Your task to perform on an android device: Search for the best rated 3d printer on Amazon. Image 0: 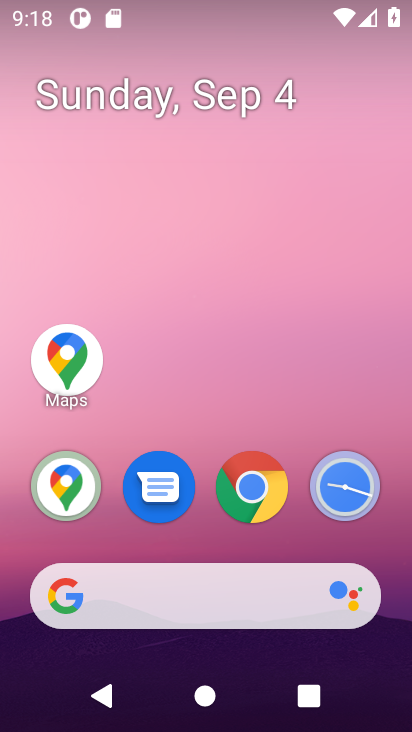
Step 0: click (267, 485)
Your task to perform on an android device: Search for the best rated 3d printer on Amazon. Image 1: 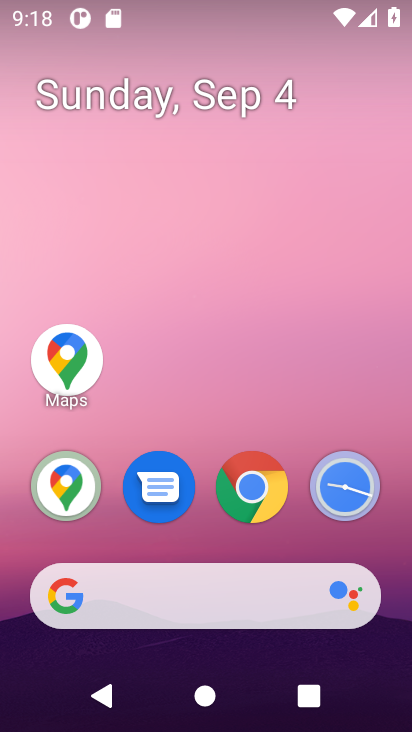
Step 1: task complete